Your task to perform on an android device: When is my next appointment? Image 0: 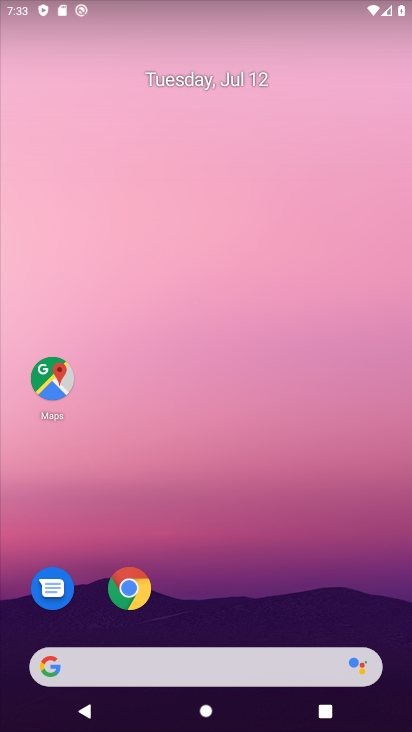
Step 0: drag from (235, 591) to (317, 67)
Your task to perform on an android device: When is my next appointment? Image 1: 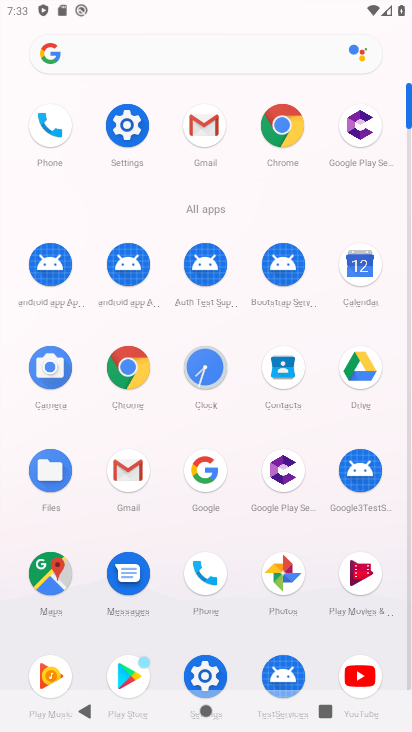
Step 1: click (369, 271)
Your task to perform on an android device: When is my next appointment? Image 2: 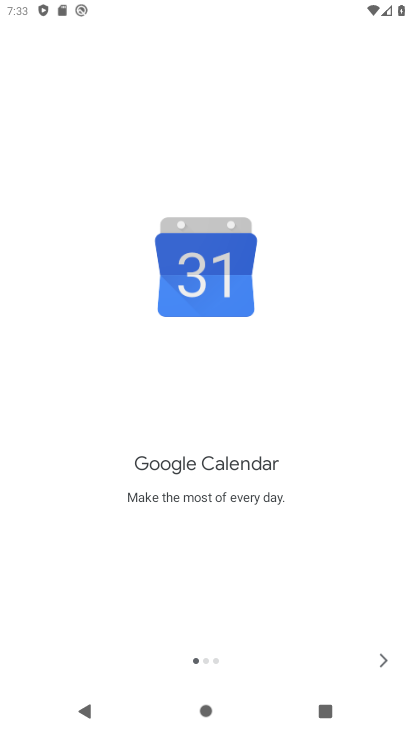
Step 2: click (382, 670)
Your task to perform on an android device: When is my next appointment? Image 3: 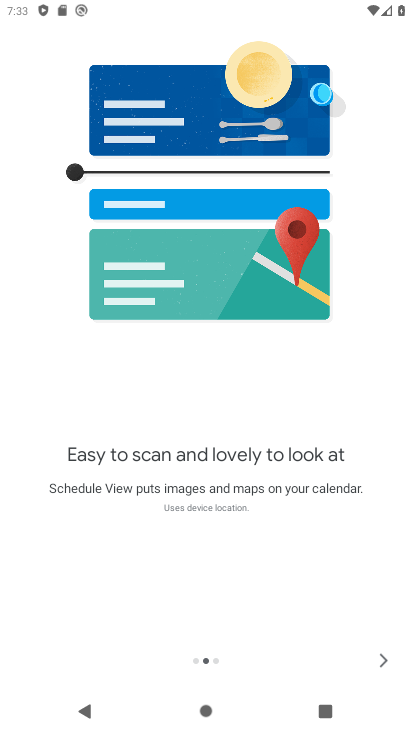
Step 3: click (382, 670)
Your task to perform on an android device: When is my next appointment? Image 4: 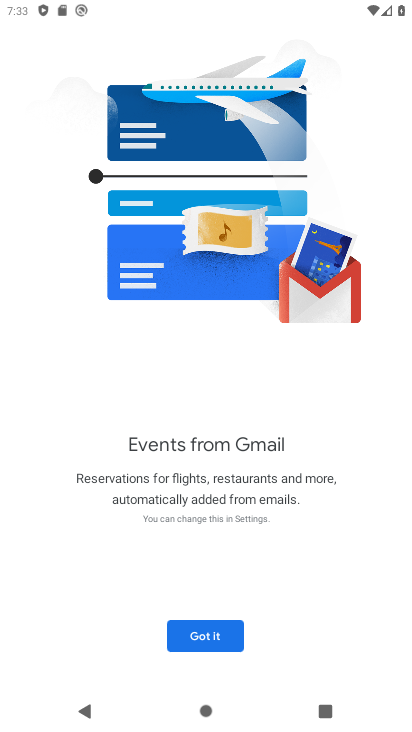
Step 4: click (225, 634)
Your task to perform on an android device: When is my next appointment? Image 5: 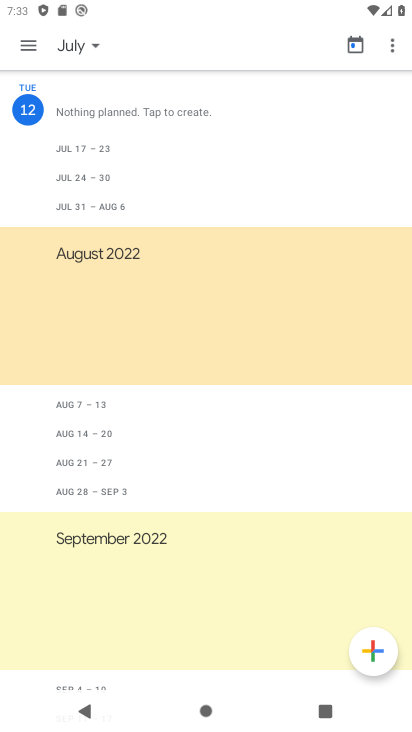
Step 5: click (93, 44)
Your task to perform on an android device: When is my next appointment? Image 6: 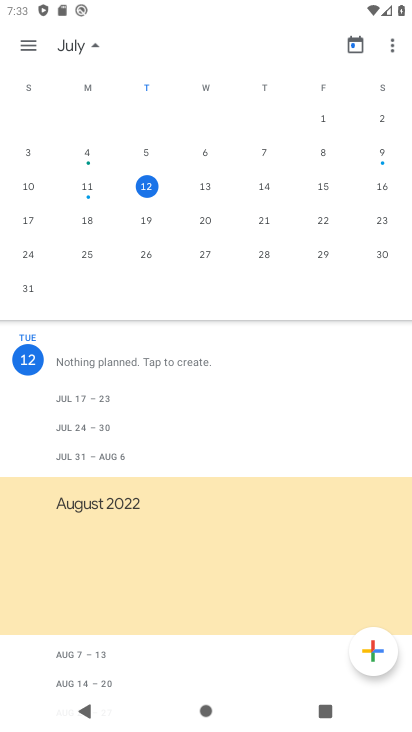
Step 6: task complete